Your task to perform on an android device: Show me the alarms in the clock app Image 0: 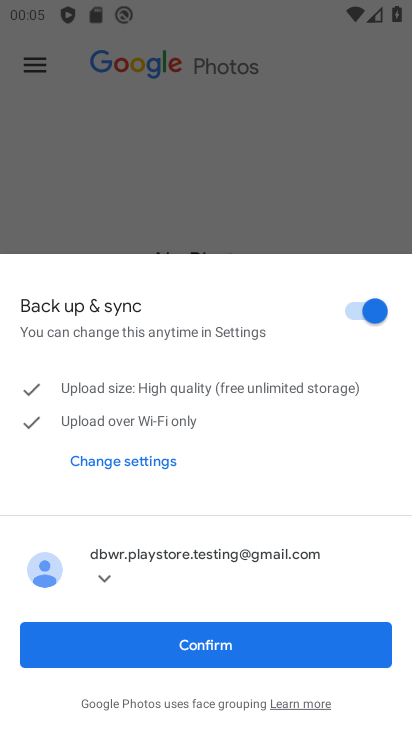
Step 0: press home button
Your task to perform on an android device: Show me the alarms in the clock app Image 1: 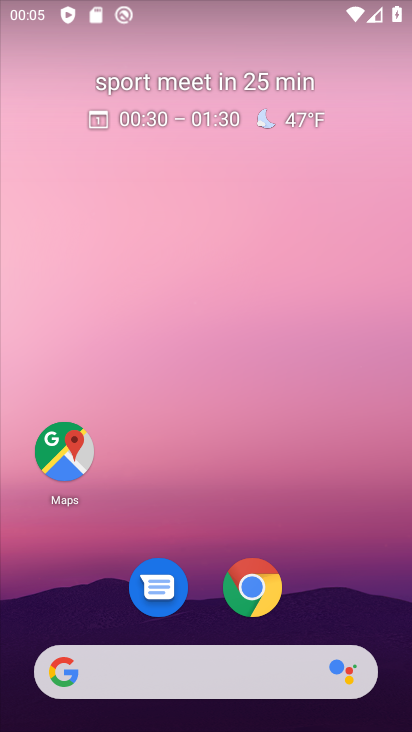
Step 1: drag from (392, 387) to (379, 233)
Your task to perform on an android device: Show me the alarms in the clock app Image 2: 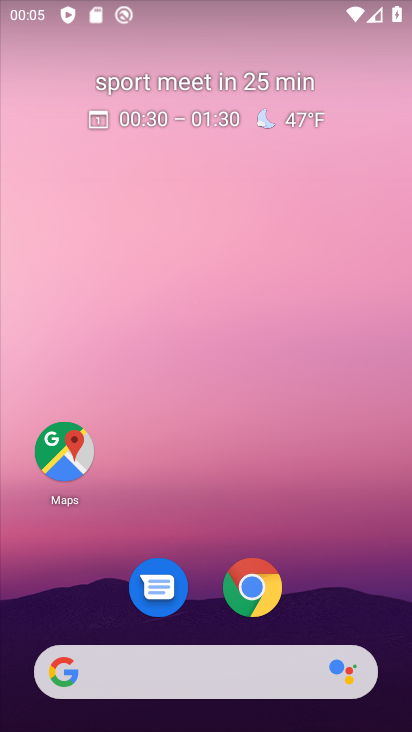
Step 2: drag from (399, 685) to (386, 226)
Your task to perform on an android device: Show me the alarms in the clock app Image 3: 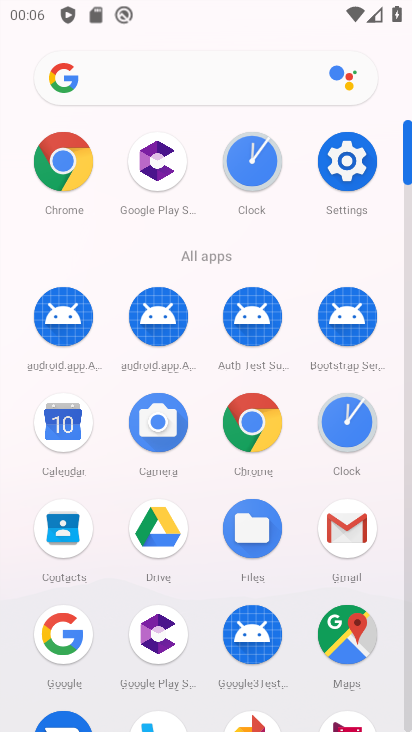
Step 3: click (355, 426)
Your task to perform on an android device: Show me the alarms in the clock app Image 4: 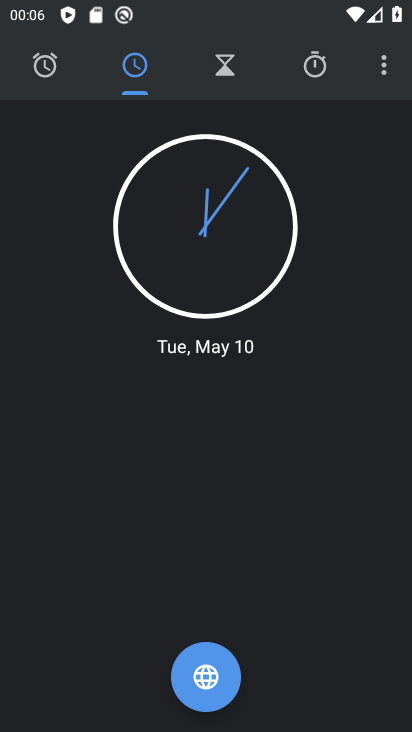
Step 4: click (44, 66)
Your task to perform on an android device: Show me the alarms in the clock app Image 5: 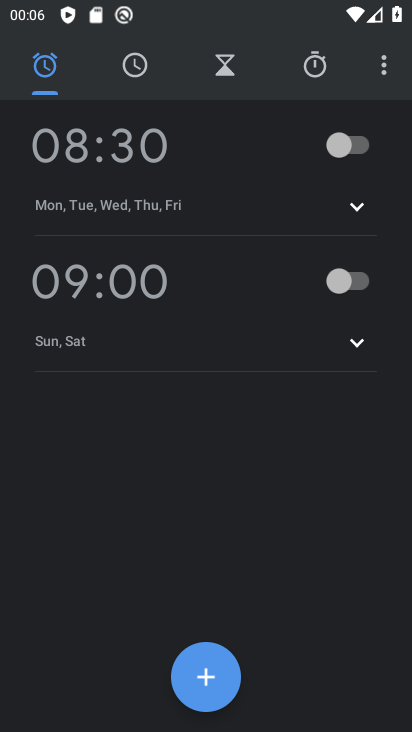
Step 5: task complete